Your task to perform on an android device: Open Yahoo.com Image 0: 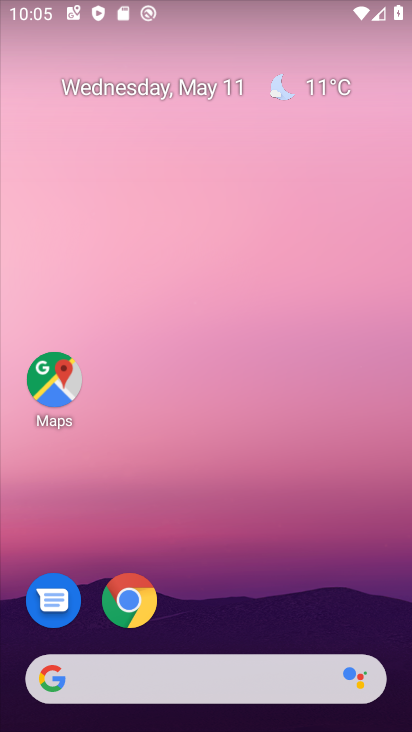
Step 0: click (150, 678)
Your task to perform on an android device: Open Yahoo.com Image 1: 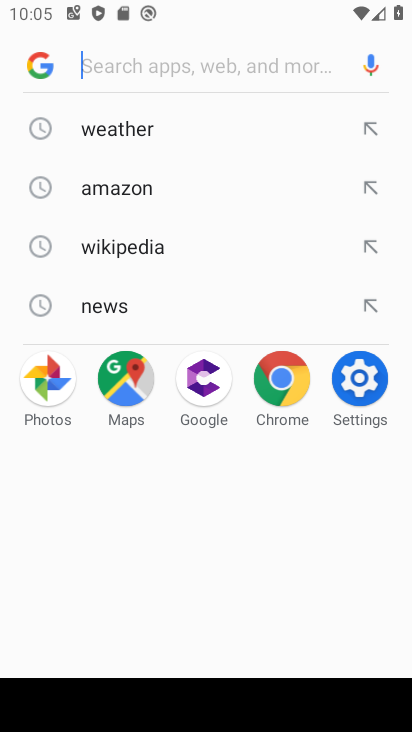
Step 1: click (280, 390)
Your task to perform on an android device: Open Yahoo.com Image 2: 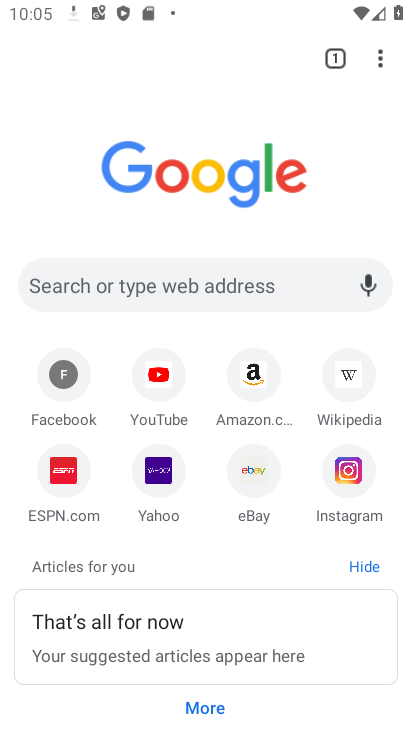
Step 2: click (153, 475)
Your task to perform on an android device: Open Yahoo.com Image 3: 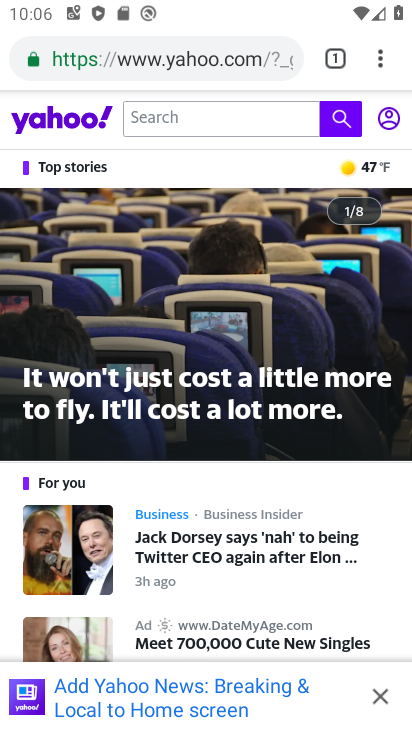
Step 3: task complete